Your task to perform on an android device: change text size in settings app Image 0: 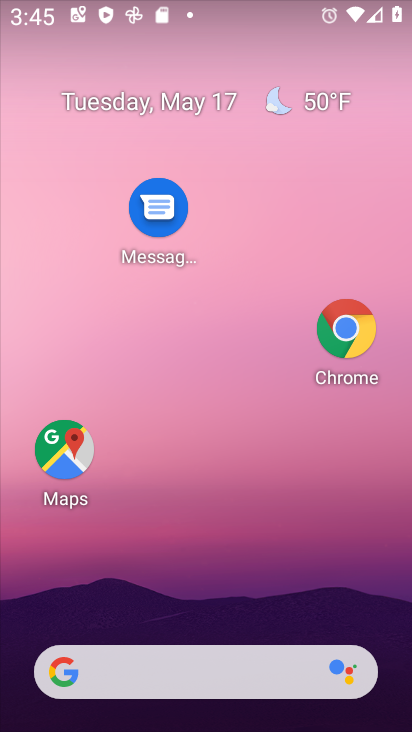
Step 0: drag from (227, 620) to (252, 206)
Your task to perform on an android device: change text size in settings app Image 1: 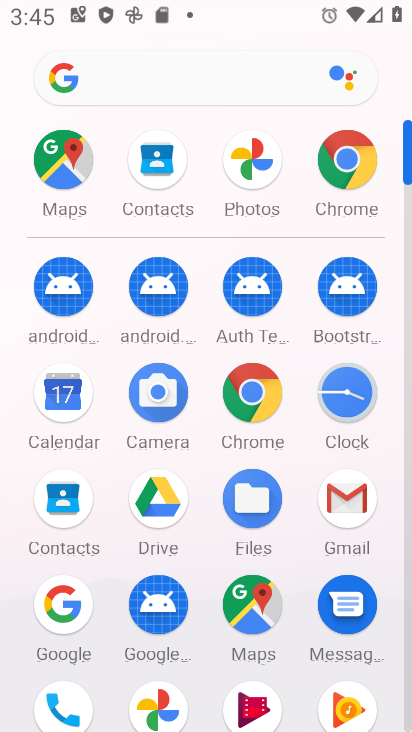
Step 1: click (406, 677)
Your task to perform on an android device: change text size in settings app Image 2: 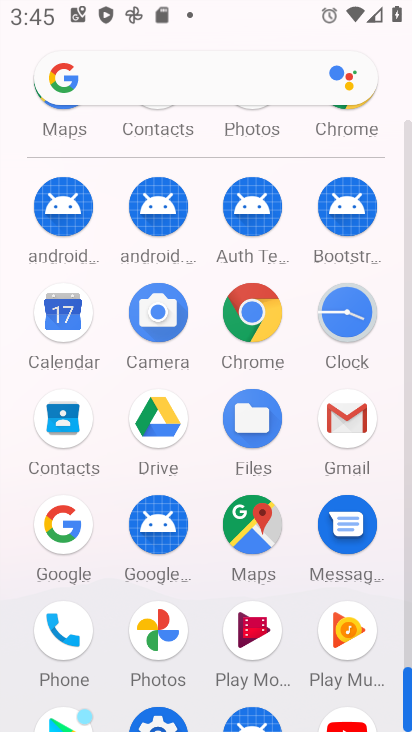
Step 2: click (164, 718)
Your task to perform on an android device: change text size in settings app Image 3: 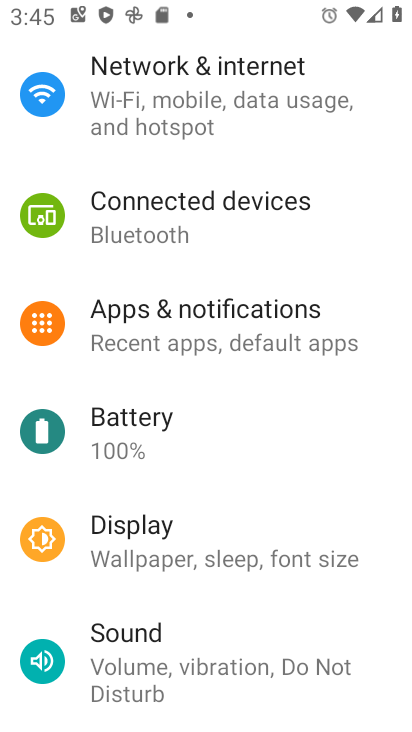
Step 3: click (200, 564)
Your task to perform on an android device: change text size in settings app Image 4: 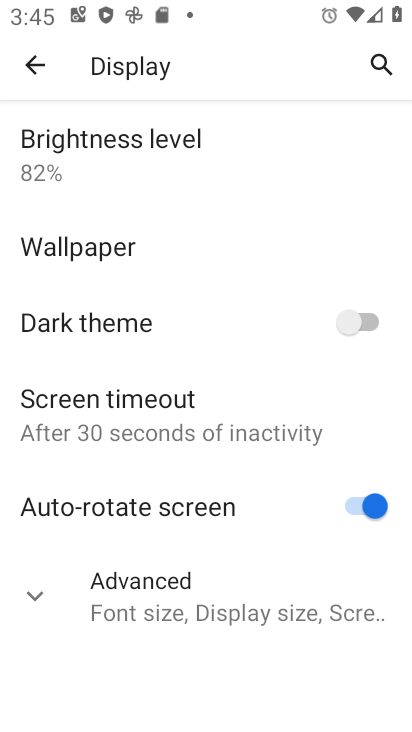
Step 4: click (207, 591)
Your task to perform on an android device: change text size in settings app Image 5: 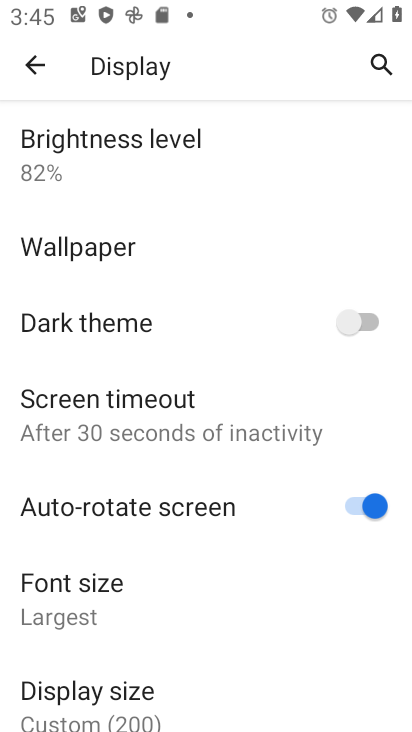
Step 5: click (189, 594)
Your task to perform on an android device: change text size in settings app Image 6: 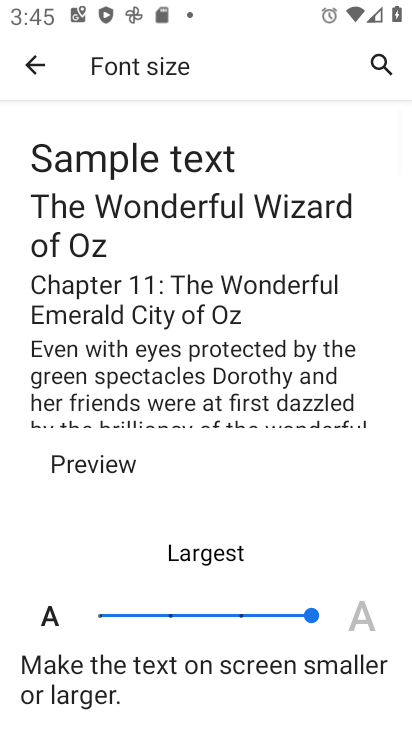
Step 6: click (102, 620)
Your task to perform on an android device: change text size in settings app Image 7: 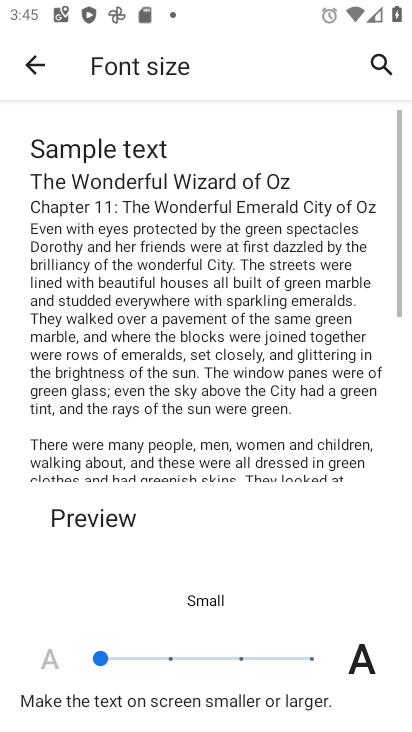
Step 7: task complete